Your task to perform on an android device: What is the recent news? Image 0: 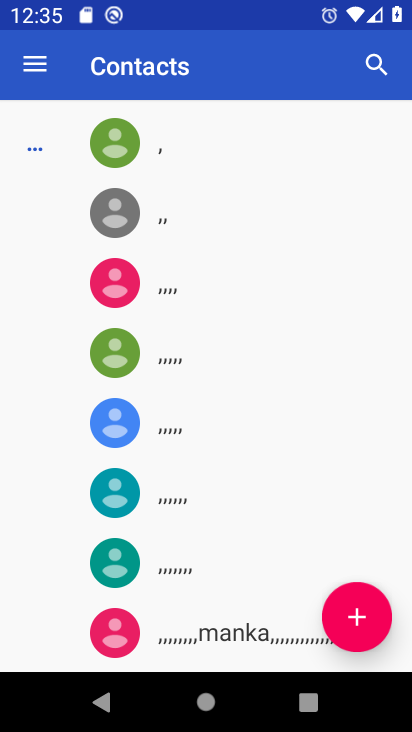
Step 0: press home button
Your task to perform on an android device: What is the recent news? Image 1: 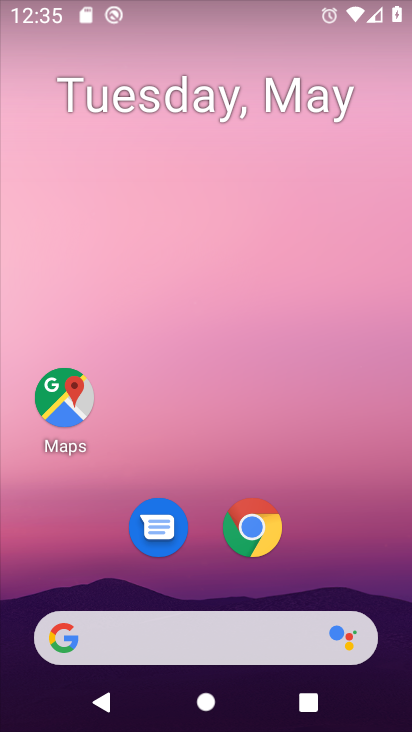
Step 1: click (190, 636)
Your task to perform on an android device: What is the recent news? Image 2: 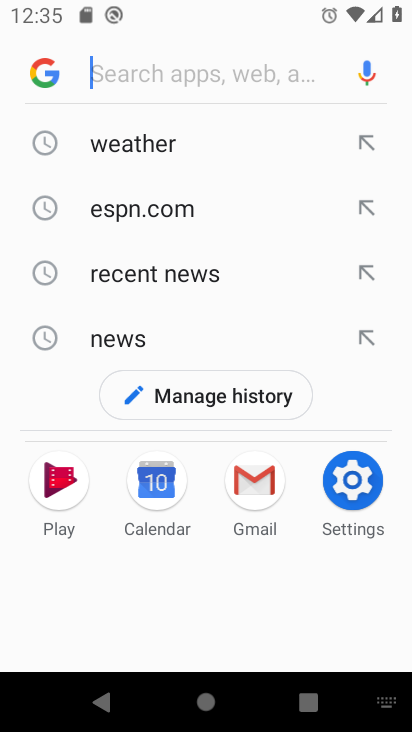
Step 2: type "recent "
Your task to perform on an android device: What is the recent news? Image 3: 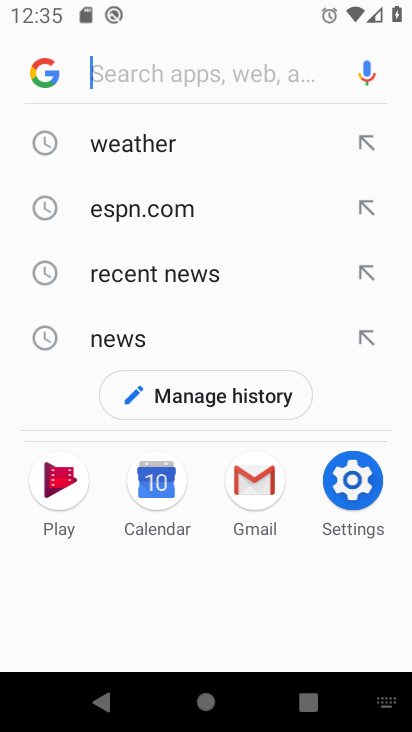
Step 3: click (233, 278)
Your task to perform on an android device: What is the recent news? Image 4: 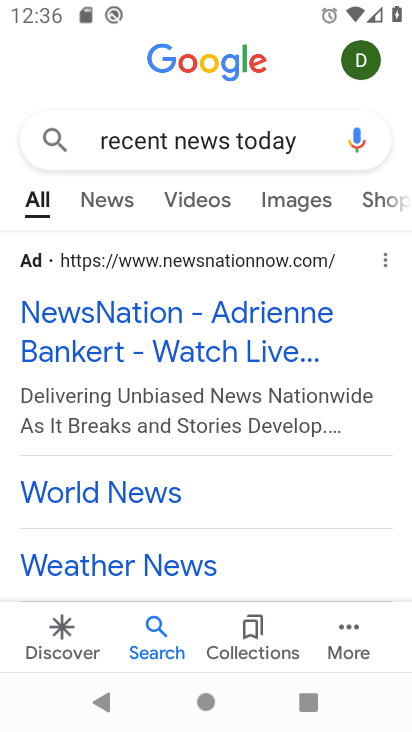
Step 4: task complete